Your task to perform on an android device: Open the calendar and show me this week's events? Image 0: 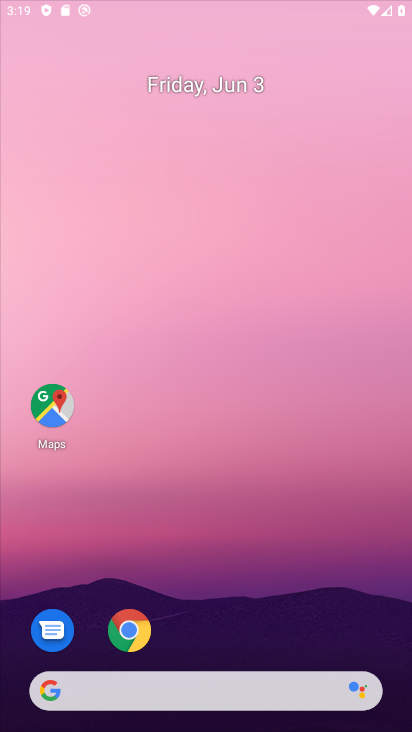
Step 0: drag from (249, 659) to (244, 135)
Your task to perform on an android device: Open the calendar and show me this week's events? Image 1: 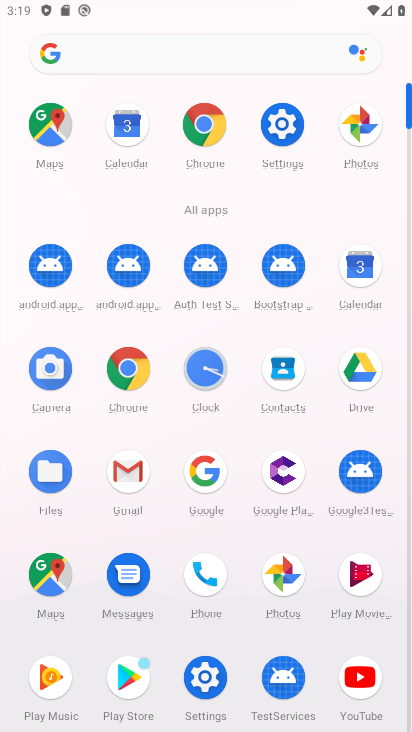
Step 1: click (359, 268)
Your task to perform on an android device: Open the calendar and show me this week's events? Image 2: 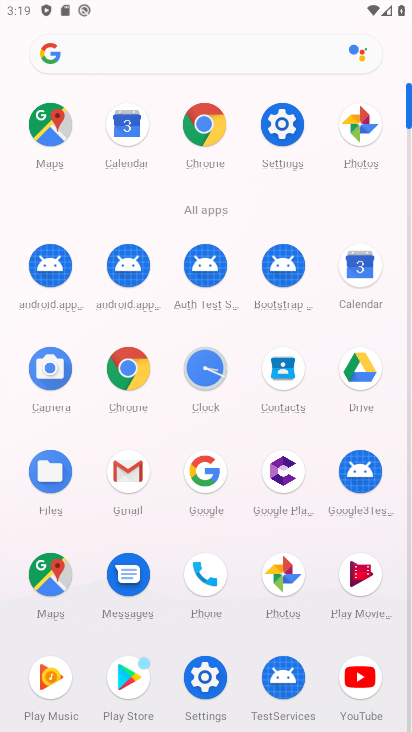
Step 2: click (359, 268)
Your task to perform on an android device: Open the calendar and show me this week's events? Image 3: 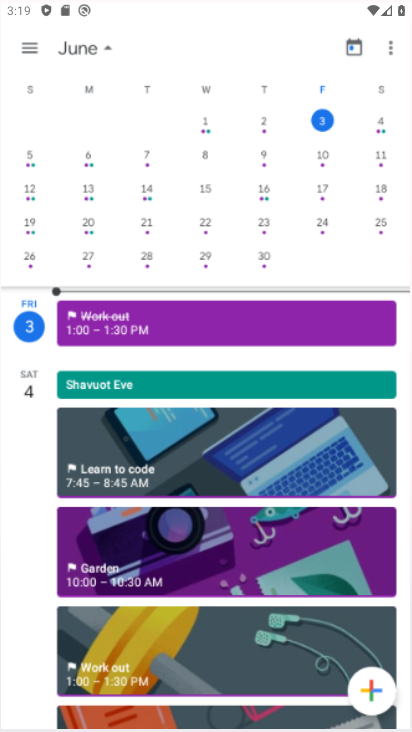
Step 3: click (361, 262)
Your task to perform on an android device: Open the calendar and show me this week's events? Image 4: 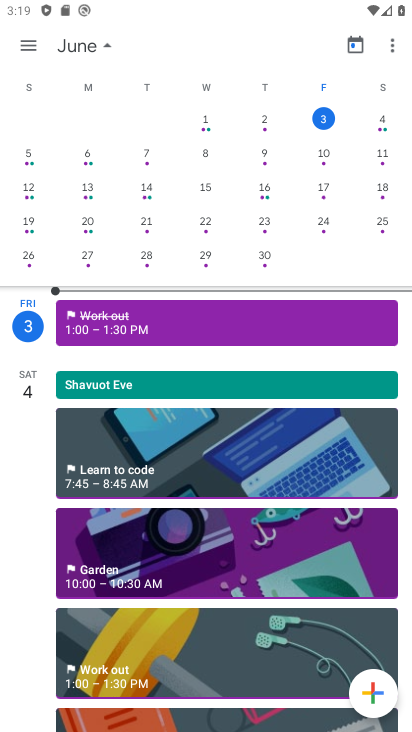
Step 4: click (360, 263)
Your task to perform on an android device: Open the calendar and show me this week's events? Image 5: 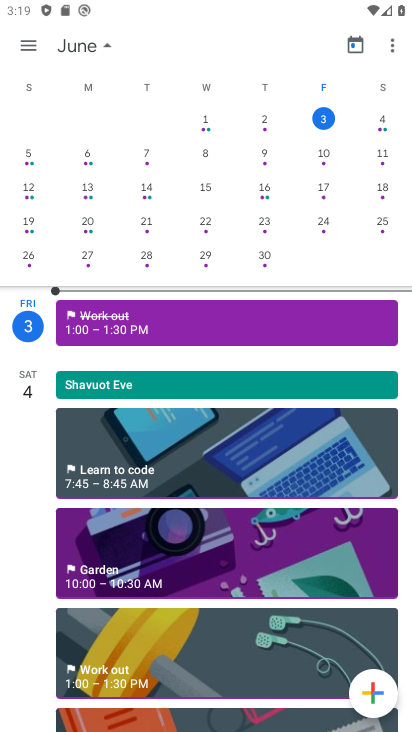
Step 5: click (357, 265)
Your task to perform on an android device: Open the calendar and show me this week's events? Image 6: 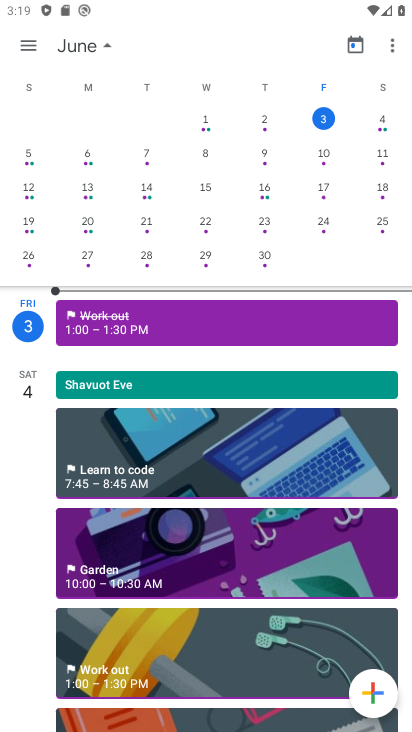
Step 6: click (149, 441)
Your task to perform on an android device: Open the calendar and show me this week's events? Image 7: 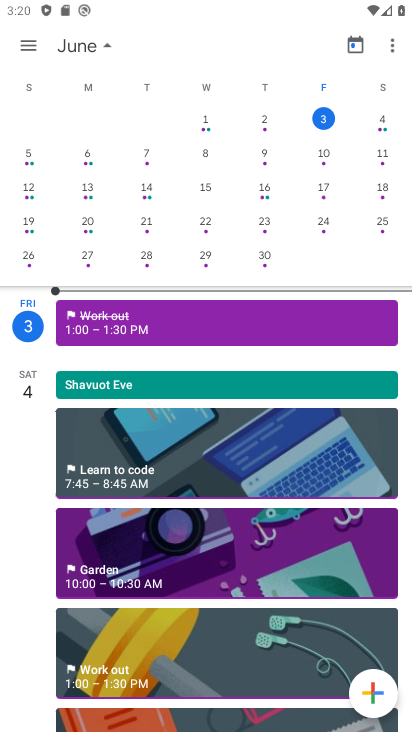
Step 7: click (149, 441)
Your task to perform on an android device: Open the calendar and show me this week's events? Image 8: 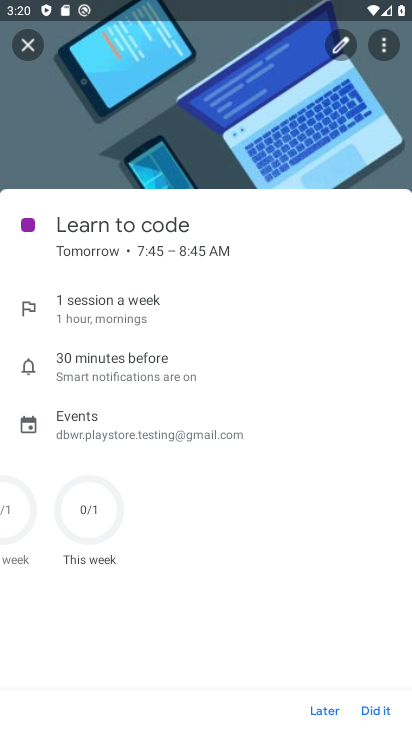
Step 8: task complete